Your task to perform on an android device: open app "Pinterest" Image 0: 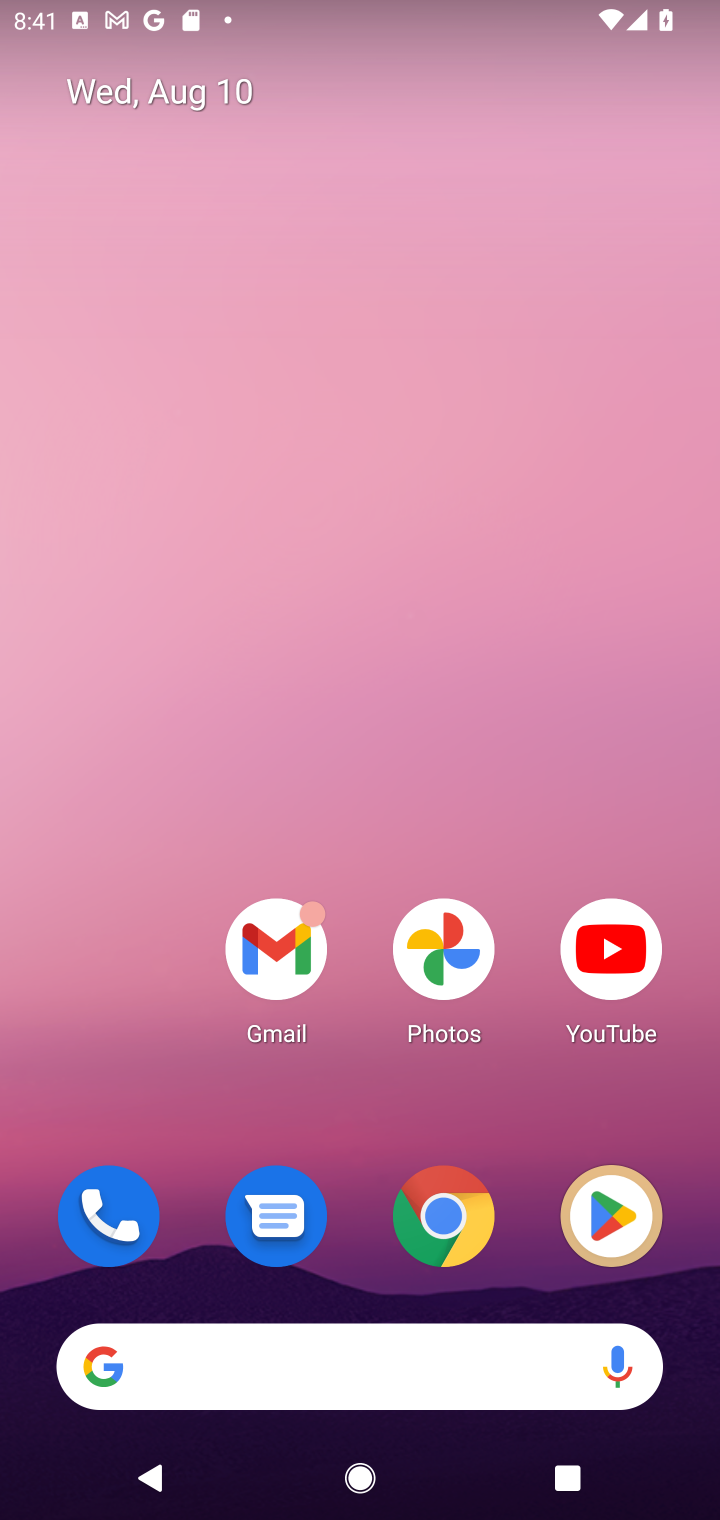
Step 0: click (604, 1207)
Your task to perform on an android device: open app "Pinterest" Image 1: 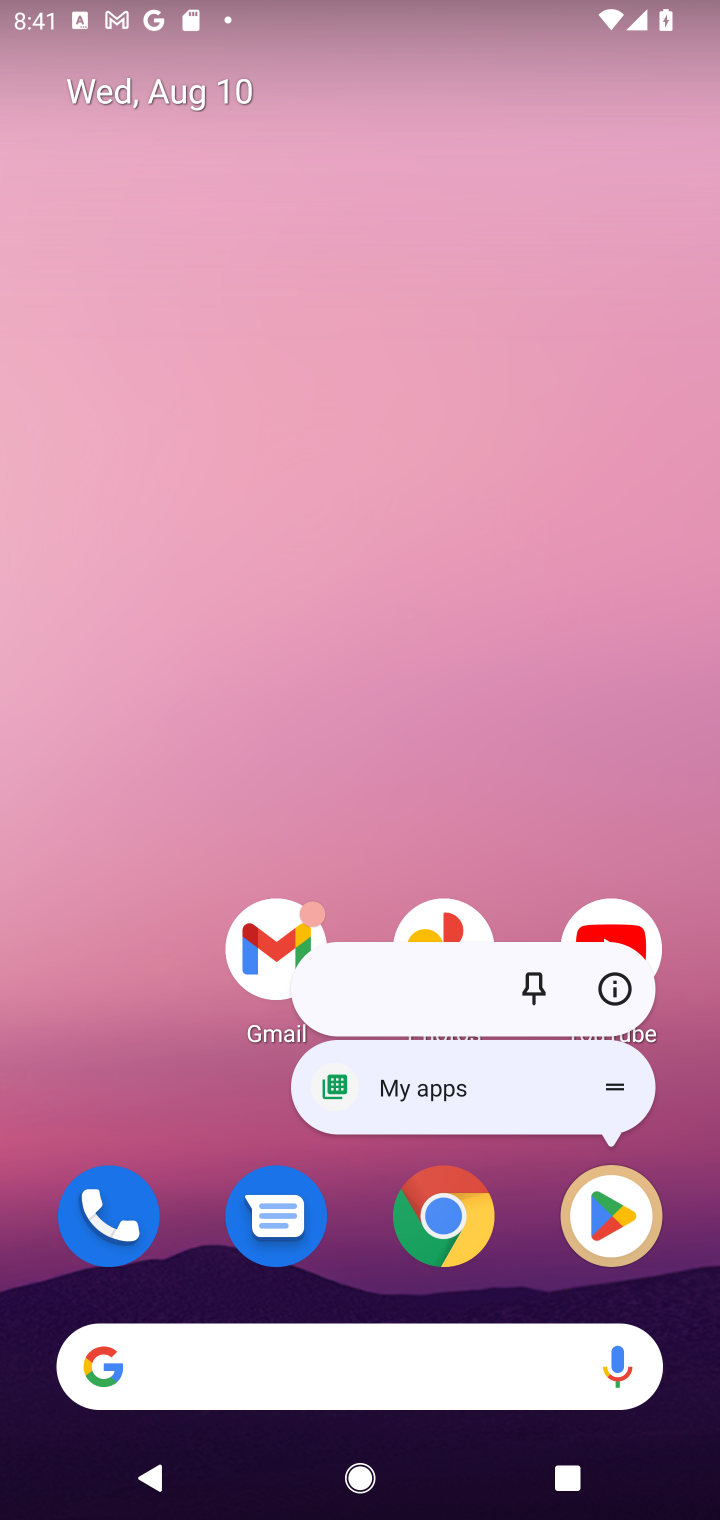
Step 1: click (593, 1215)
Your task to perform on an android device: open app "Pinterest" Image 2: 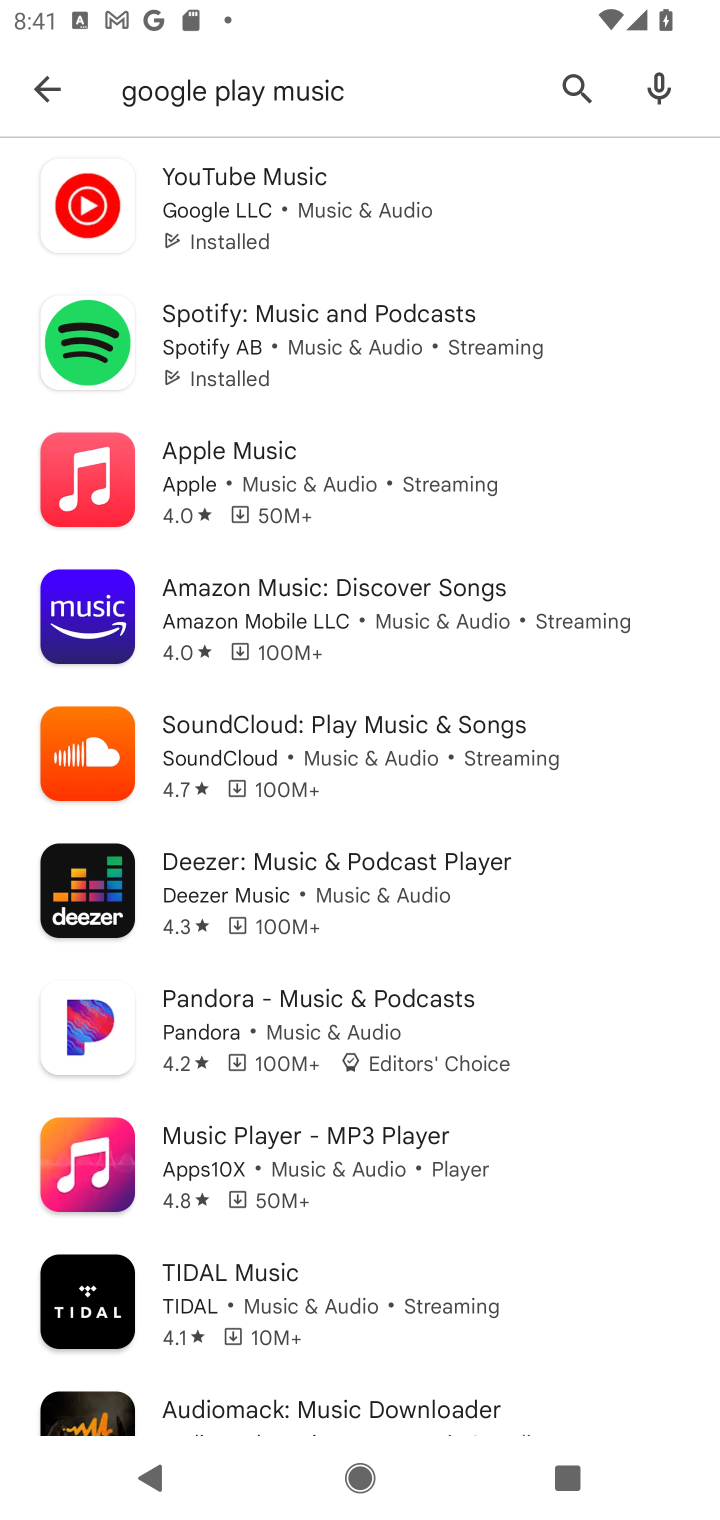
Step 2: click (568, 87)
Your task to perform on an android device: open app "Pinterest" Image 3: 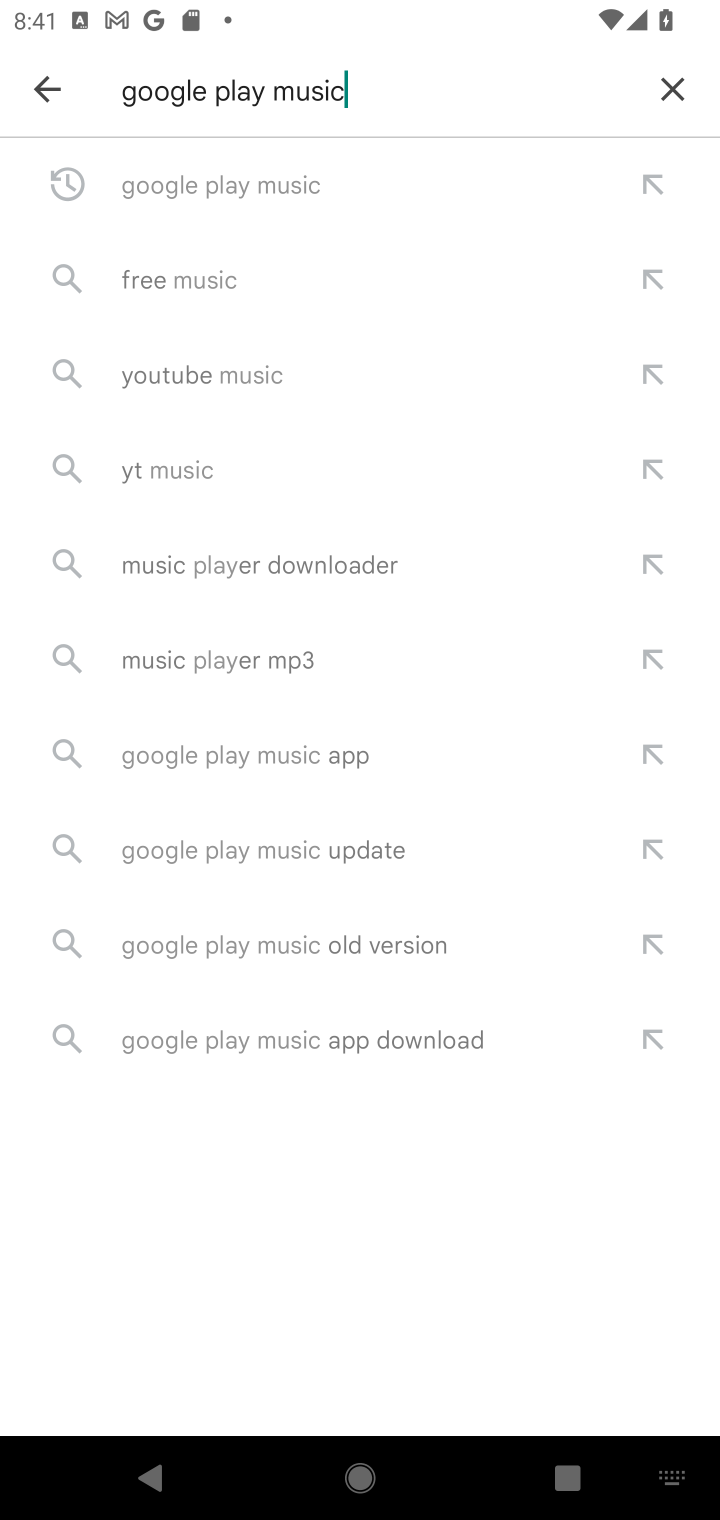
Step 3: click (659, 85)
Your task to perform on an android device: open app "Pinterest" Image 4: 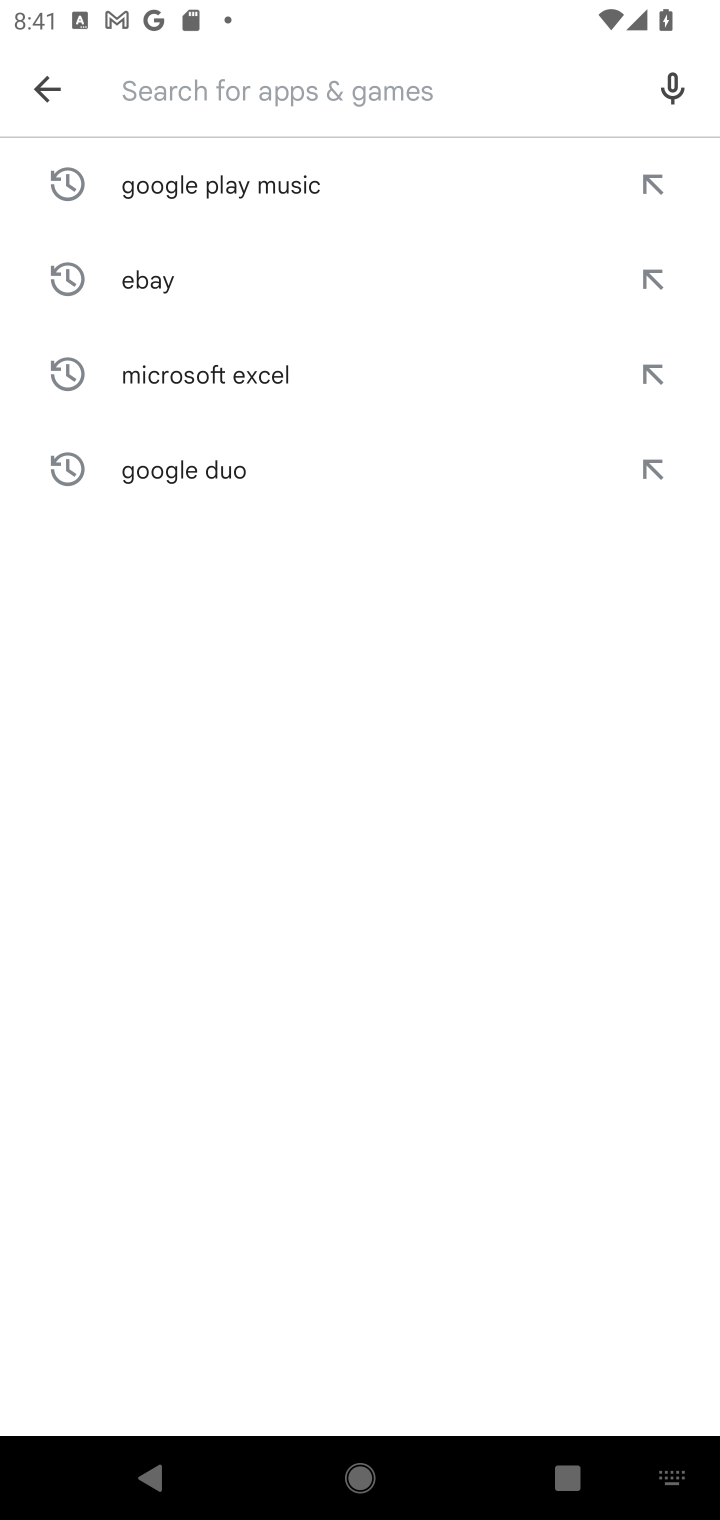
Step 4: click (229, 93)
Your task to perform on an android device: open app "Pinterest" Image 5: 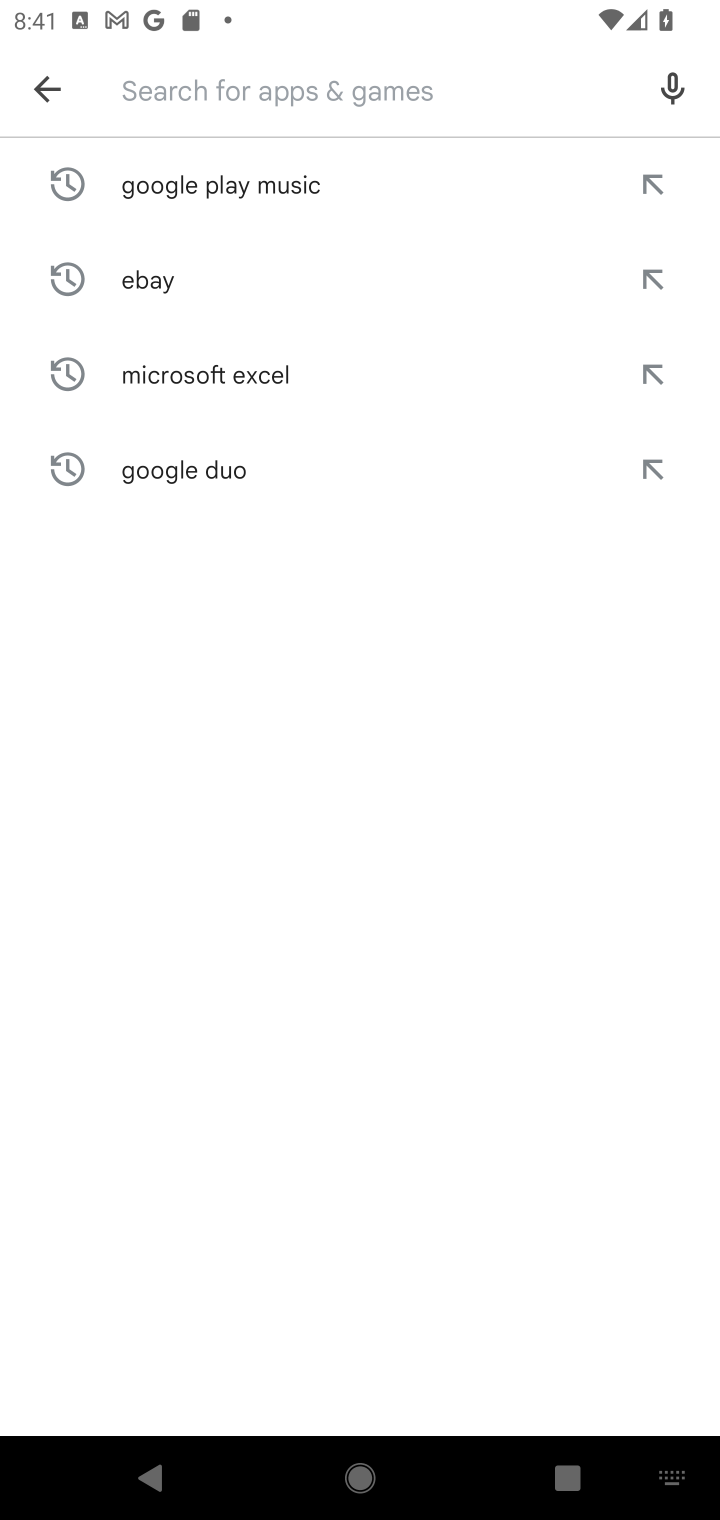
Step 5: type "Pinterest"
Your task to perform on an android device: open app "Pinterest" Image 6: 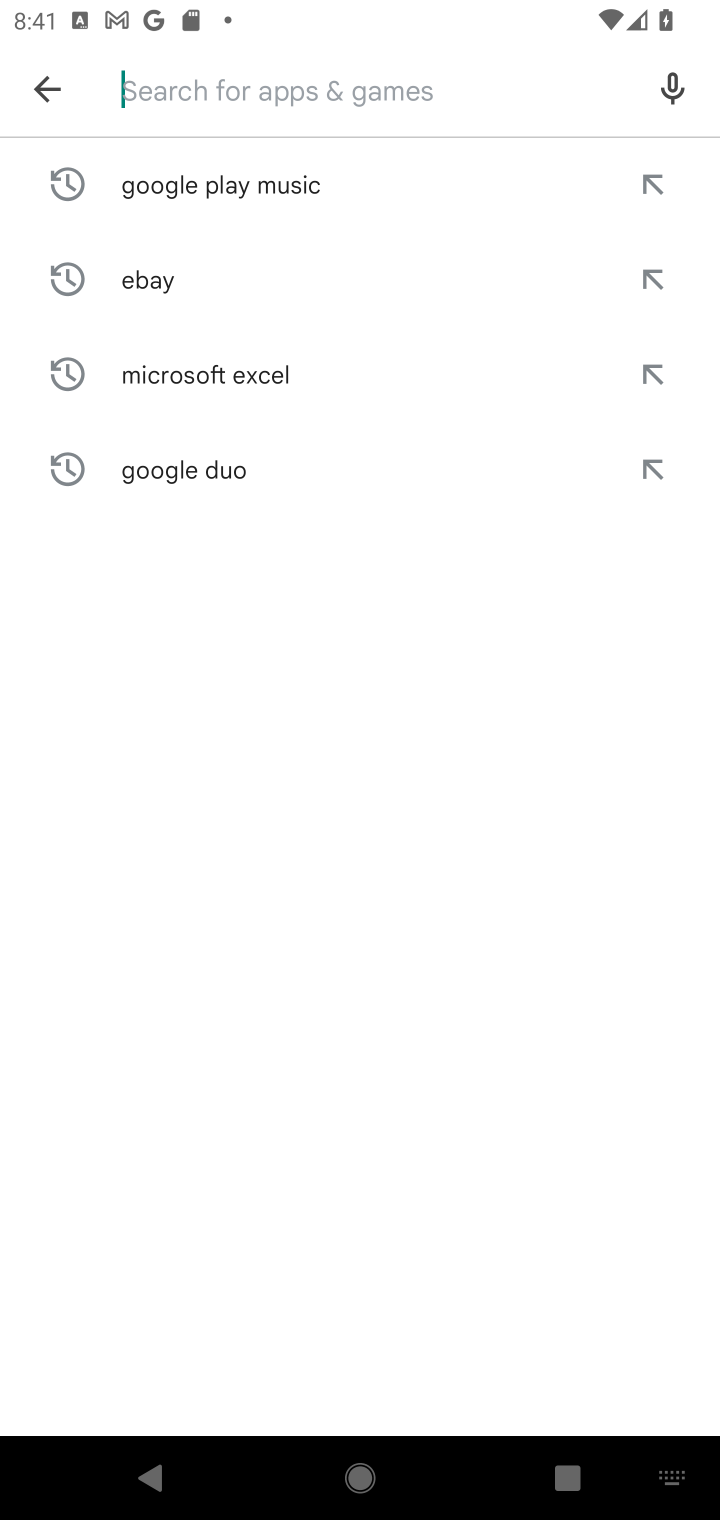
Step 6: click (243, 858)
Your task to perform on an android device: open app "Pinterest" Image 7: 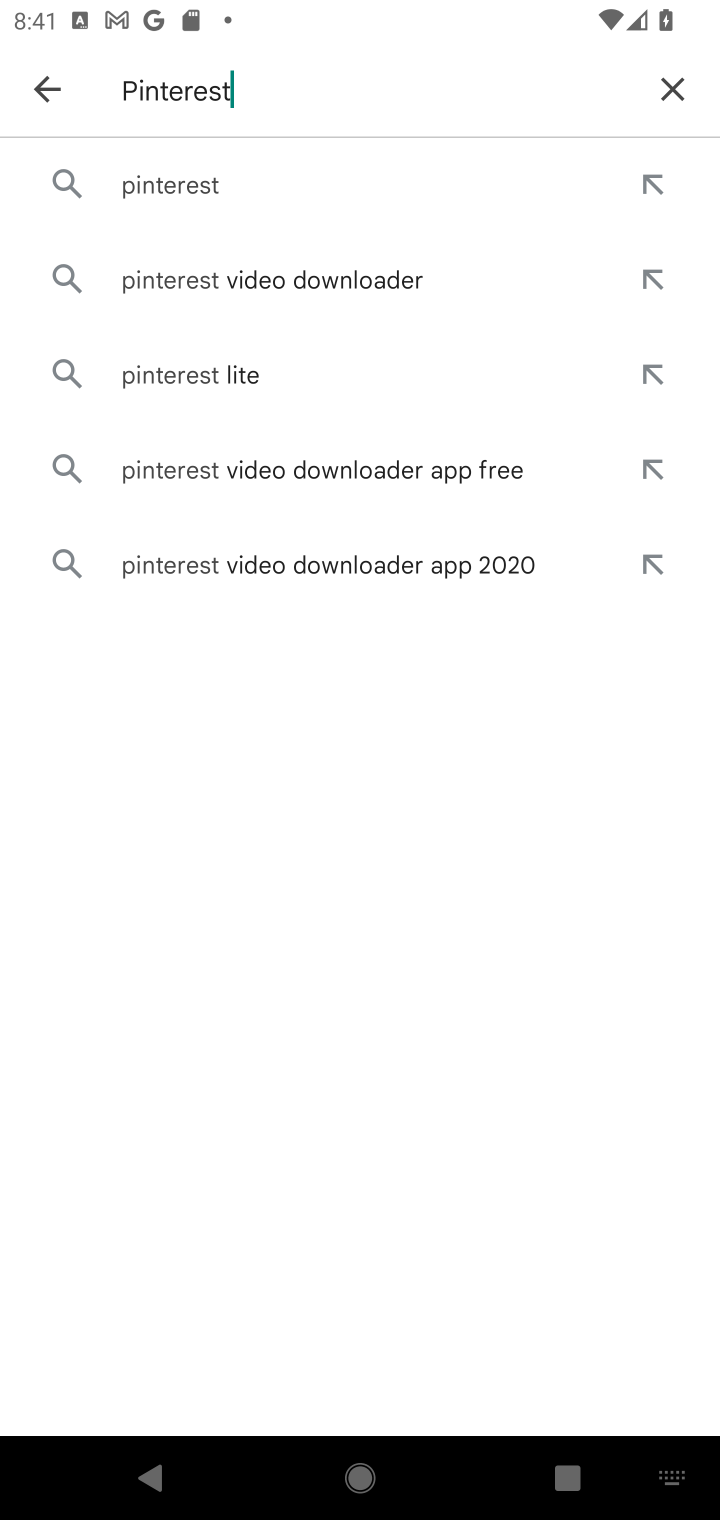
Step 7: click (258, 178)
Your task to perform on an android device: open app "Pinterest" Image 8: 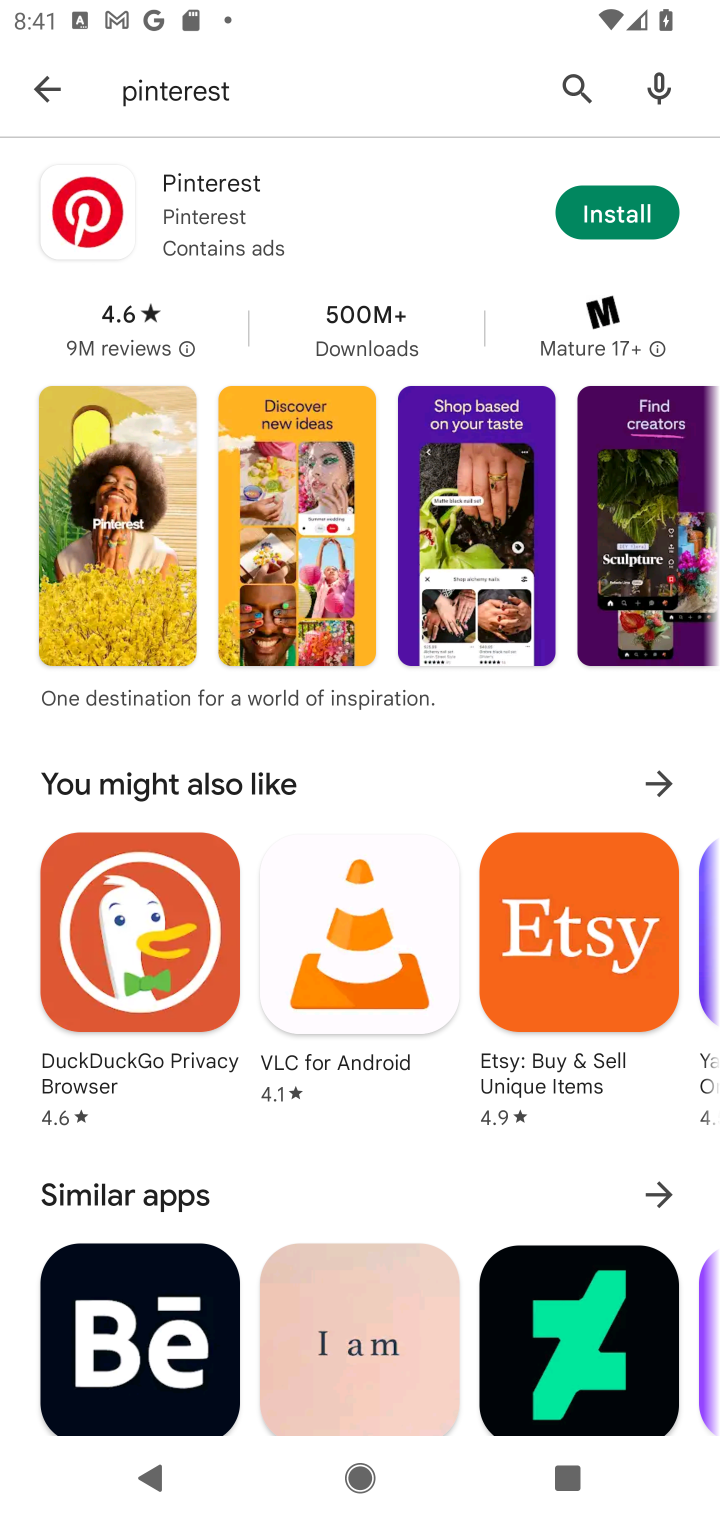
Step 8: task complete